Your task to perform on an android device: install app "Upside-Cash back on gas & food" Image 0: 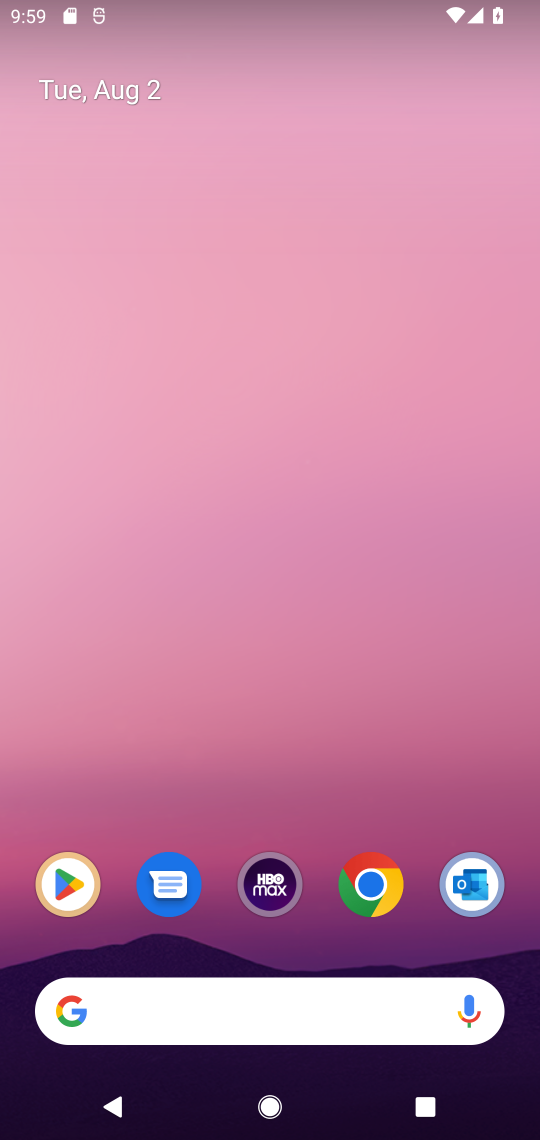
Step 0: click (65, 899)
Your task to perform on an android device: install app "Upside-Cash back on gas & food" Image 1: 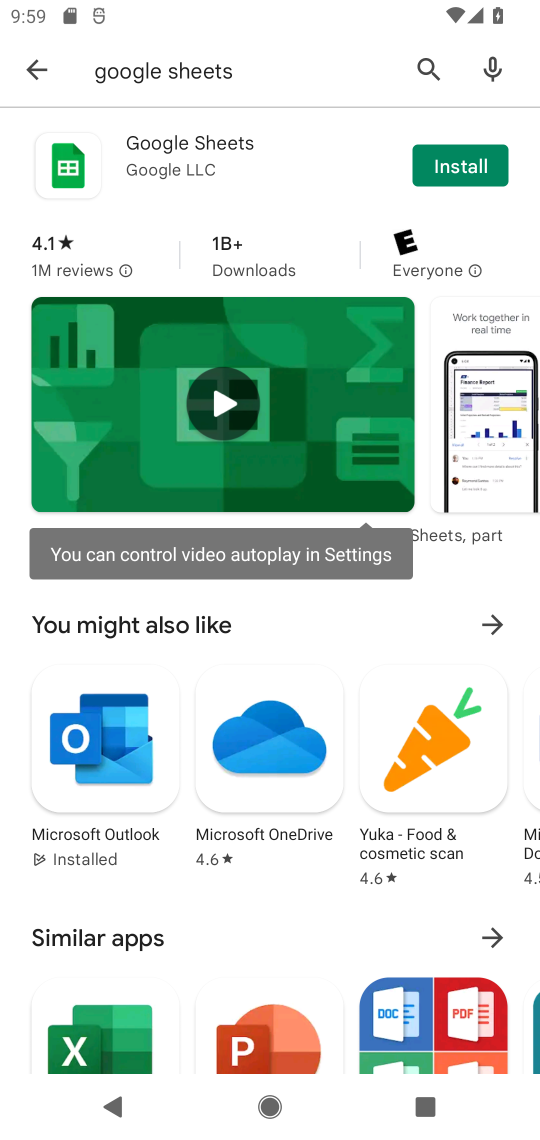
Step 1: click (270, 81)
Your task to perform on an android device: install app "Upside-Cash back on gas & food" Image 2: 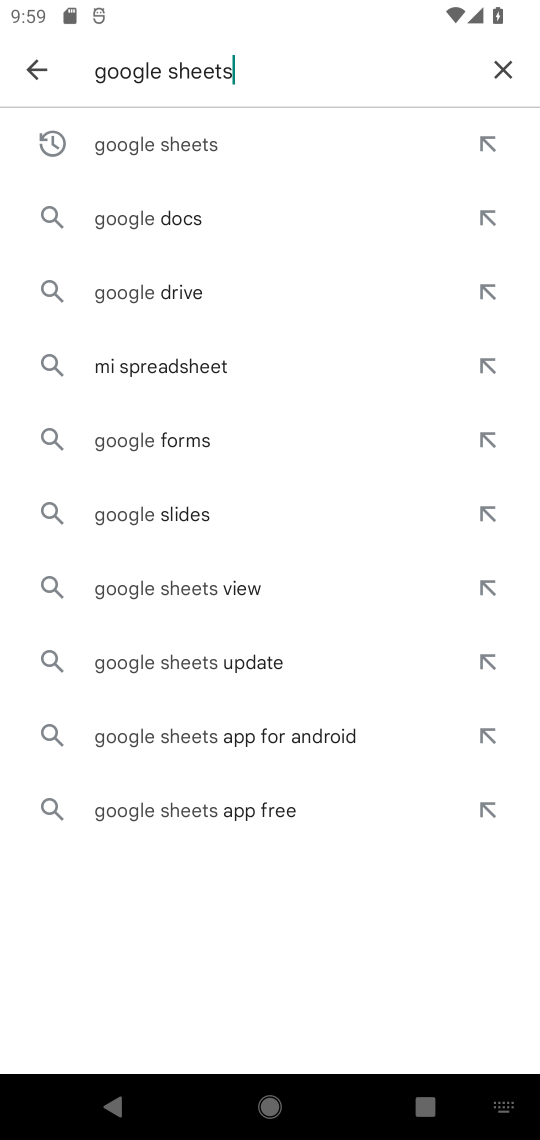
Step 2: click (504, 78)
Your task to perform on an android device: install app "Upside-Cash back on gas & food" Image 3: 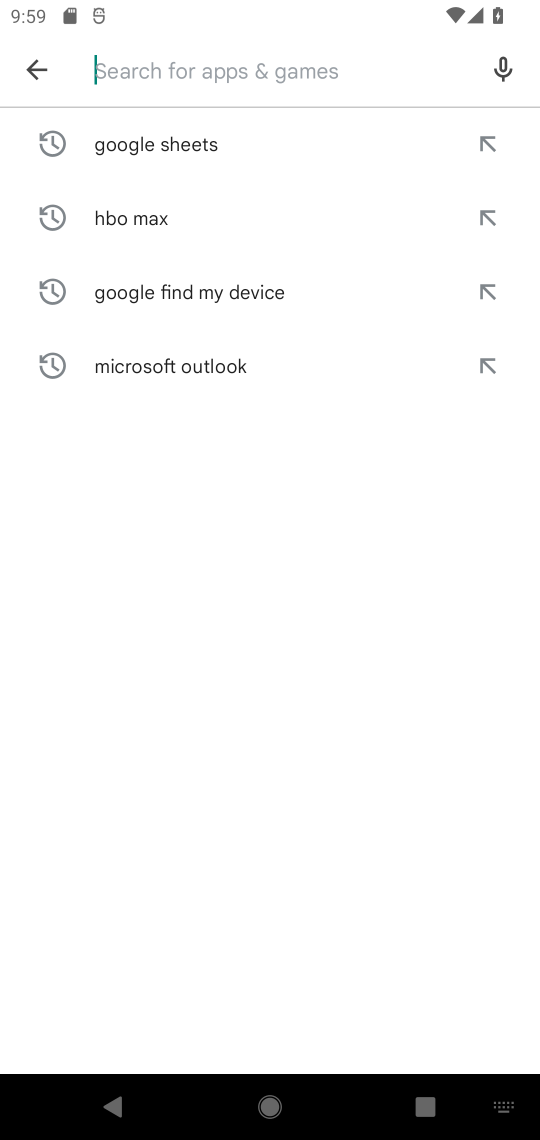
Step 3: type "Upside"
Your task to perform on an android device: install app "Upside-Cash back on gas & food" Image 4: 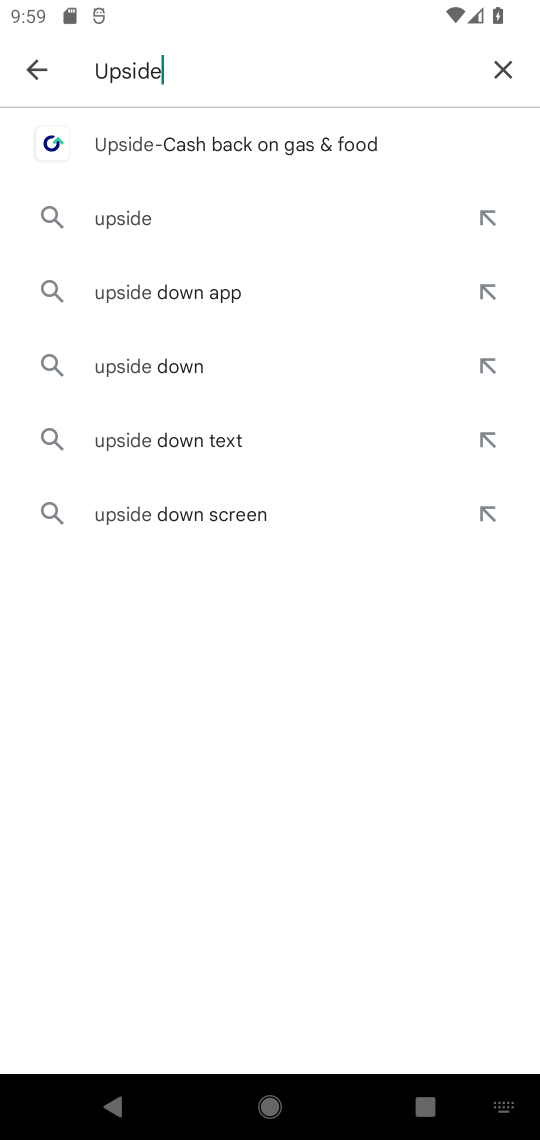
Step 4: click (280, 146)
Your task to perform on an android device: install app "Upside-Cash back on gas & food" Image 5: 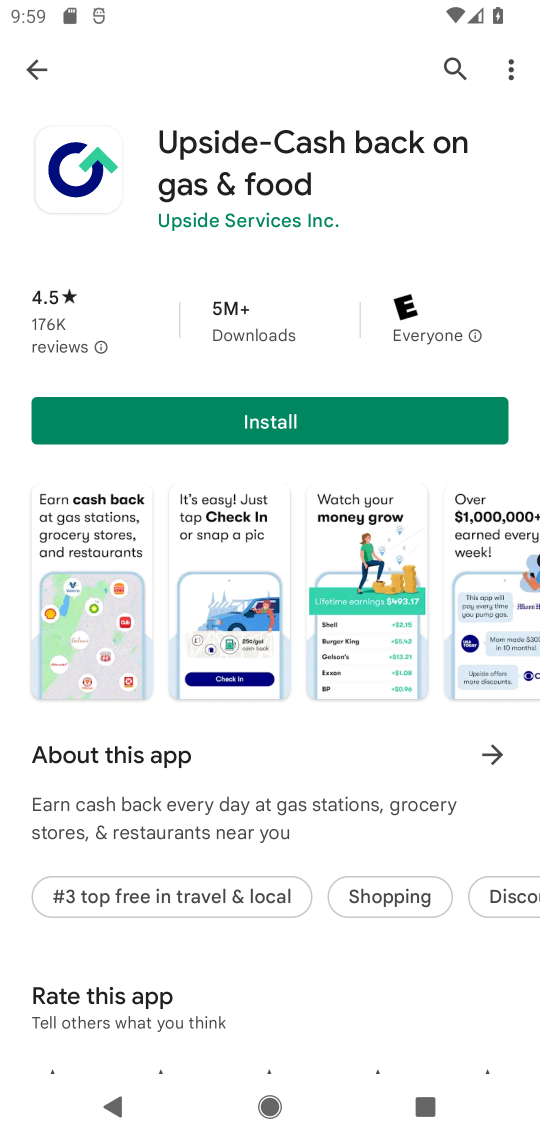
Step 5: click (252, 432)
Your task to perform on an android device: install app "Upside-Cash back on gas & food" Image 6: 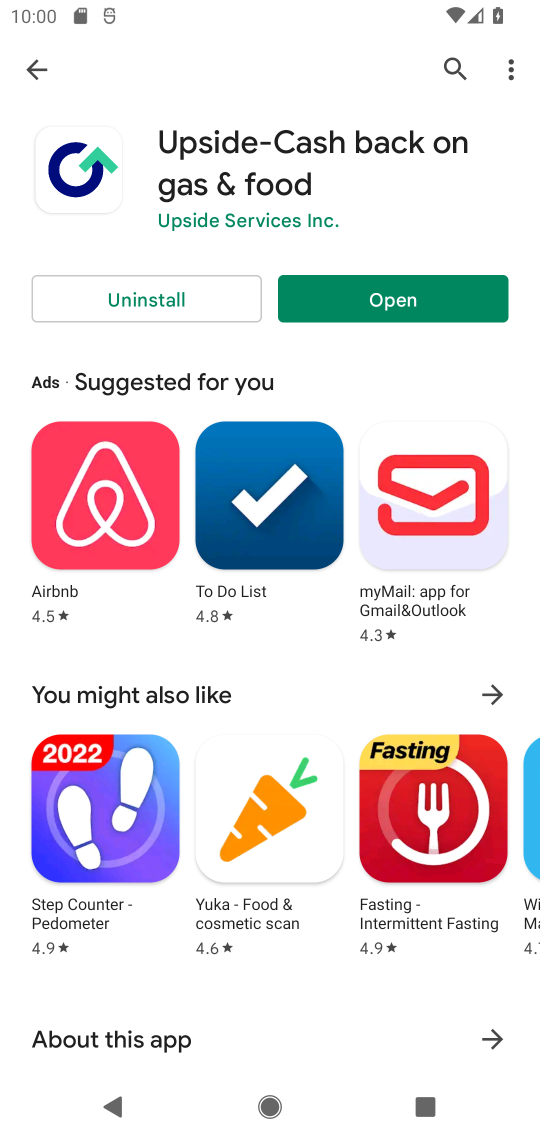
Step 6: task complete